Your task to perform on an android device: change the upload size in google photos Image 0: 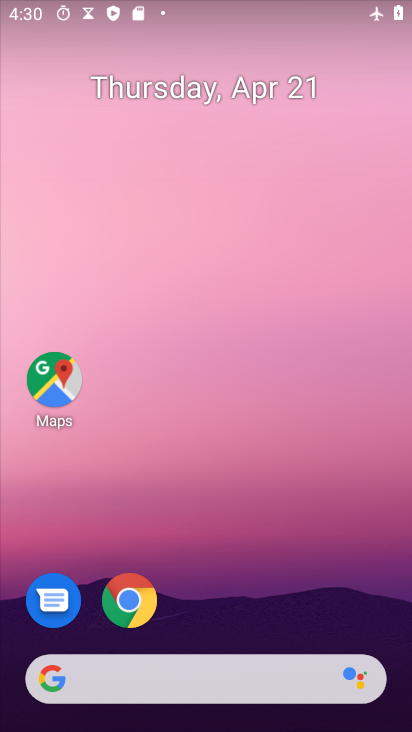
Step 0: drag from (254, 628) to (306, 72)
Your task to perform on an android device: change the upload size in google photos Image 1: 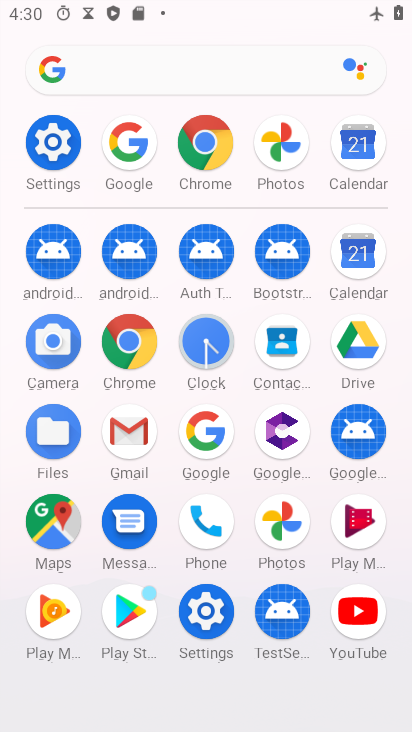
Step 1: click (281, 143)
Your task to perform on an android device: change the upload size in google photos Image 2: 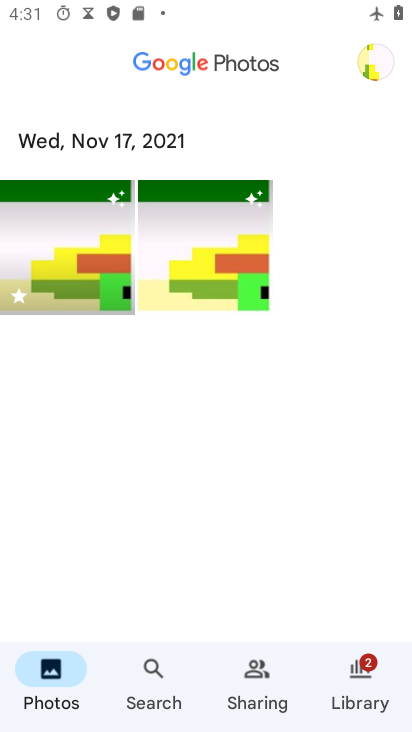
Step 2: click (381, 65)
Your task to perform on an android device: change the upload size in google photos Image 3: 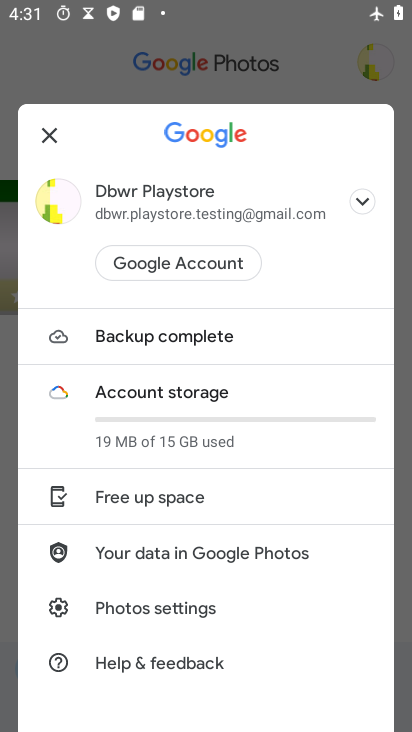
Step 3: click (177, 613)
Your task to perform on an android device: change the upload size in google photos Image 4: 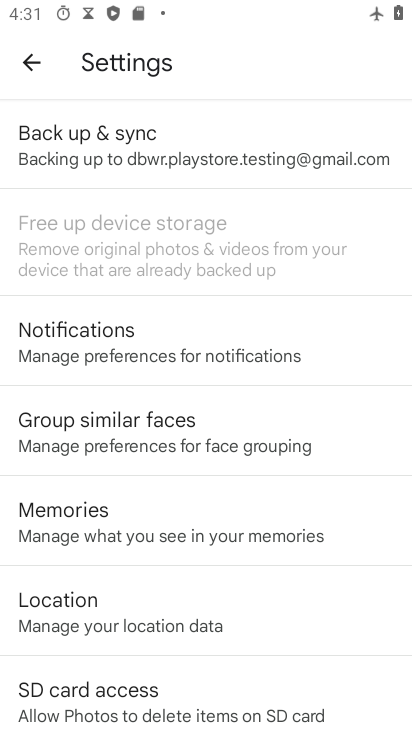
Step 4: click (161, 153)
Your task to perform on an android device: change the upload size in google photos Image 5: 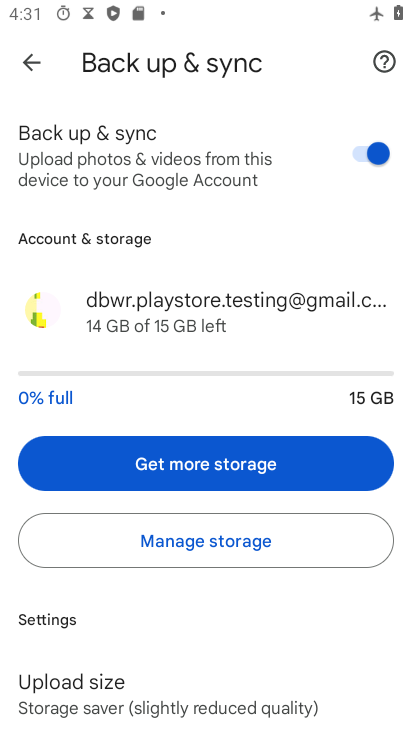
Step 5: drag from (157, 611) to (219, 407)
Your task to perform on an android device: change the upload size in google photos Image 6: 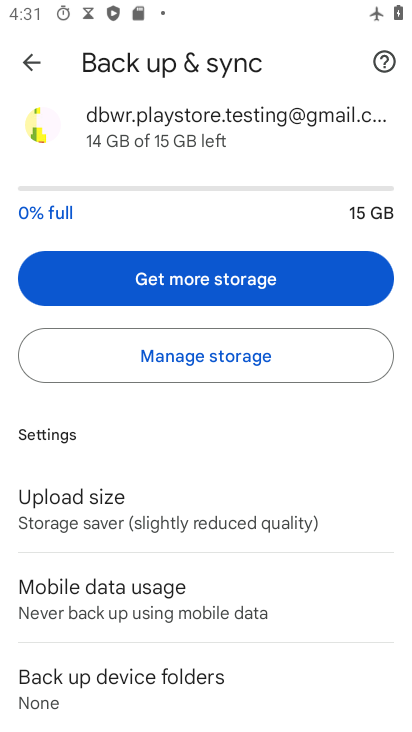
Step 6: click (153, 507)
Your task to perform on an android device: change the upload size in google photos Image 7: 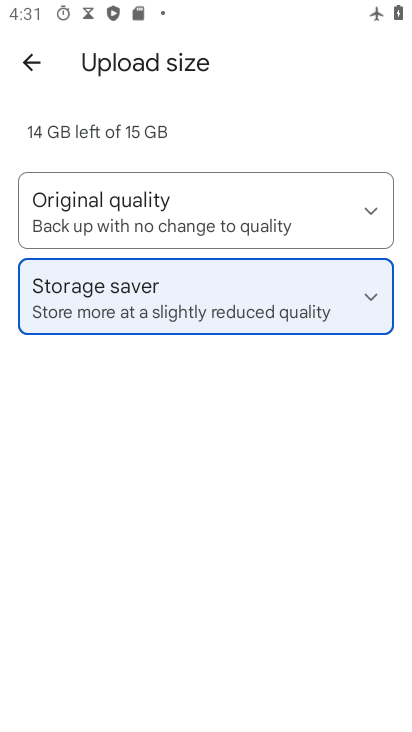
Step 7: click (165, 218)
Your task to perform on an android device: change the upload size in google photos Image 8: 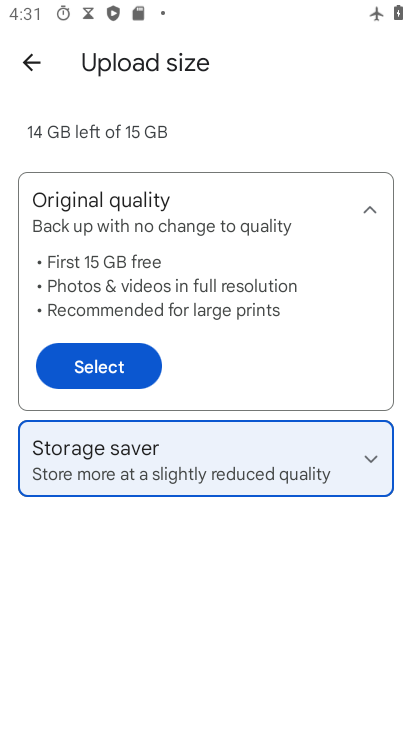
Step 8: click (118, 364)
Your task to perform on an android device: change the upload size in google photos Image 9: 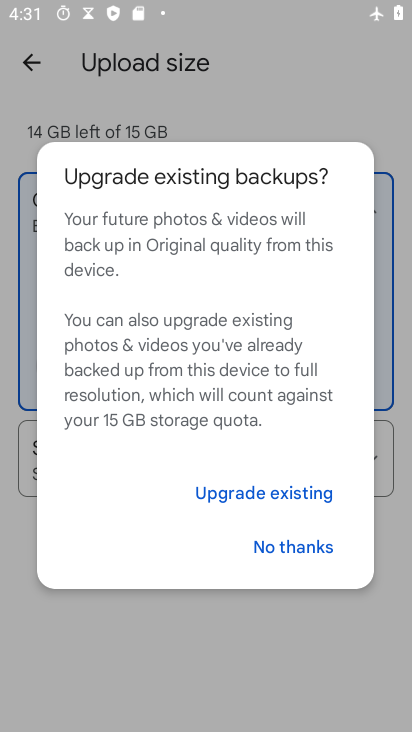
Step 9: click (293, 548)
Your task to perform on an android device: change the upload size in google photos Image 10: 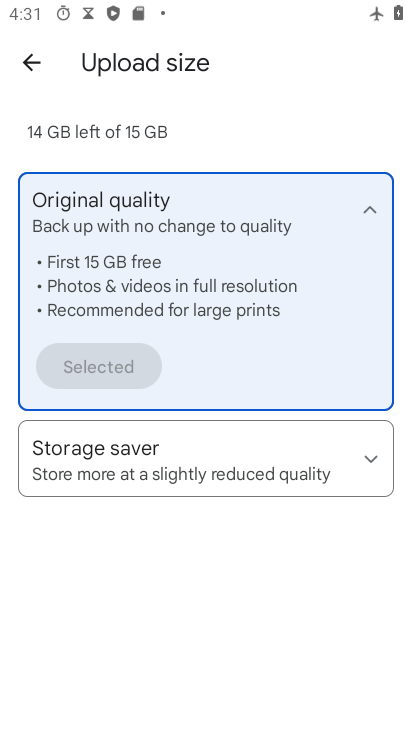
Step 10: task complete